Your task to perform on an android device: allow notifications from all sites in the chrome app Image 0: 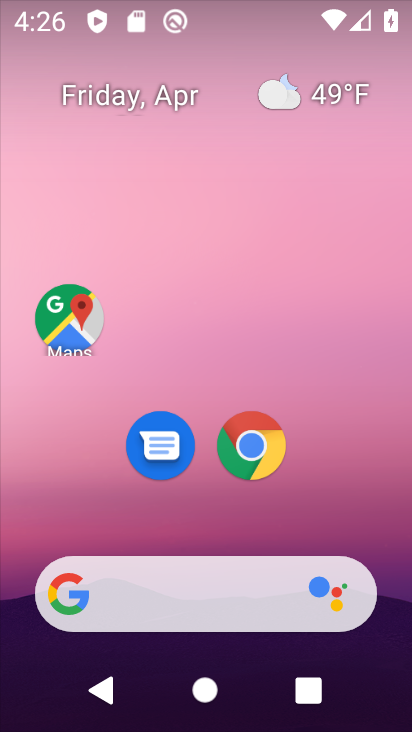
Step 0: drag from (337, 486) to (292, 22)
Your task to perform on an android device: allow notifications from all sites in the chrome app Image 1: 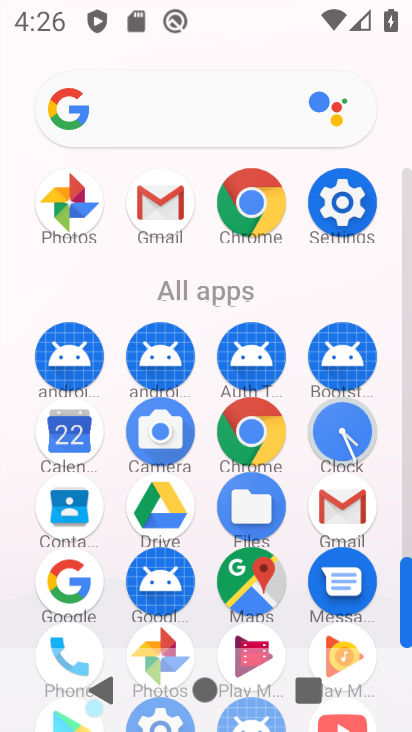
Step 1: click (259, 422)
Your task to perform on an android device: allow notifications from all sites in the chrome app Image 2: 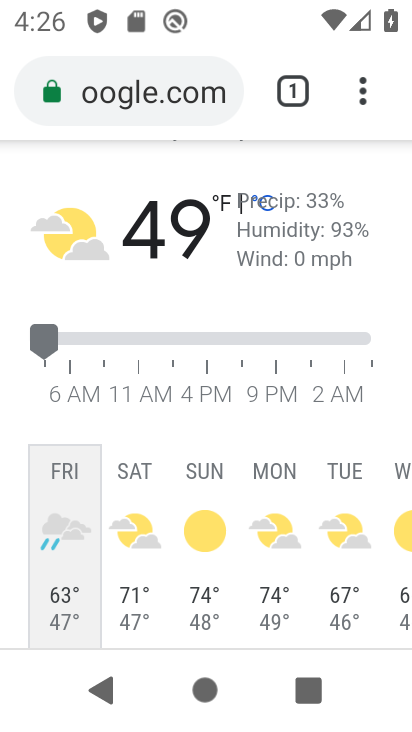
Step 2: click (366, 95)
Your task to perform on an android device: allow notifications from all sites in the chrome app Image 3: 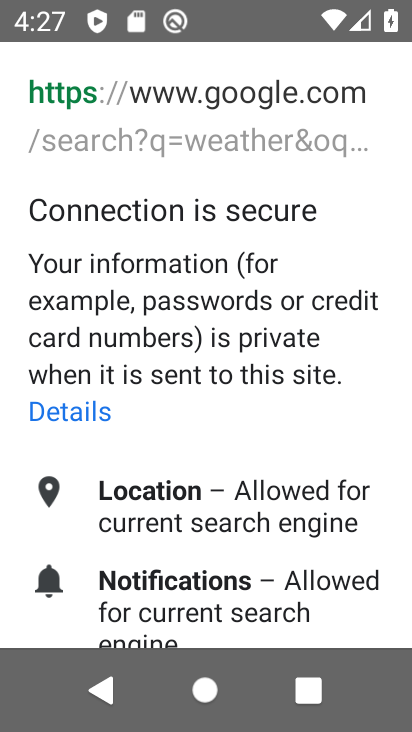
Step 3: drag from (198, 552) to (292, 221)
Your task to perform on an android device: allow notifications from all sites in the chrome app Image 4: 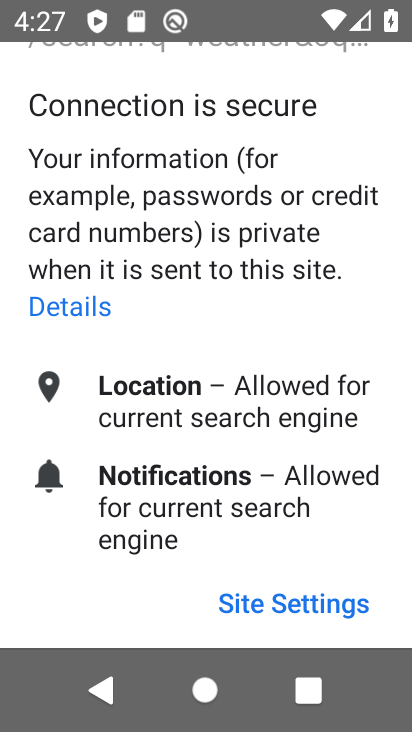
Step 4: click (103, 709)
Your task to perform on an android device: allow notifications from all sites in the chrome app Image 5: 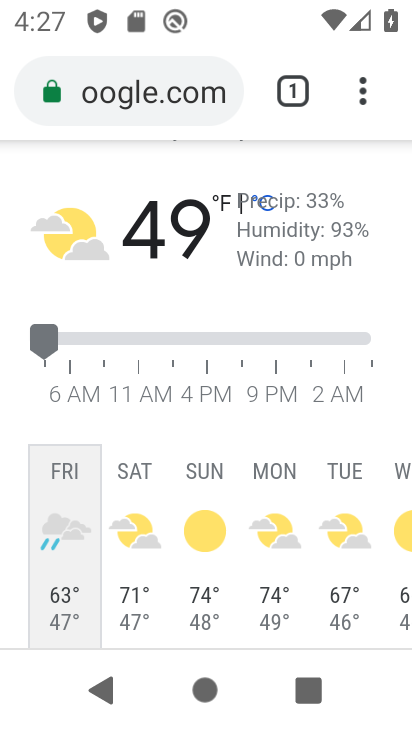
Step 5: click (365, 77)
Your task to perform on an android device: allow notifications from all sites in the chrome app Image 6: 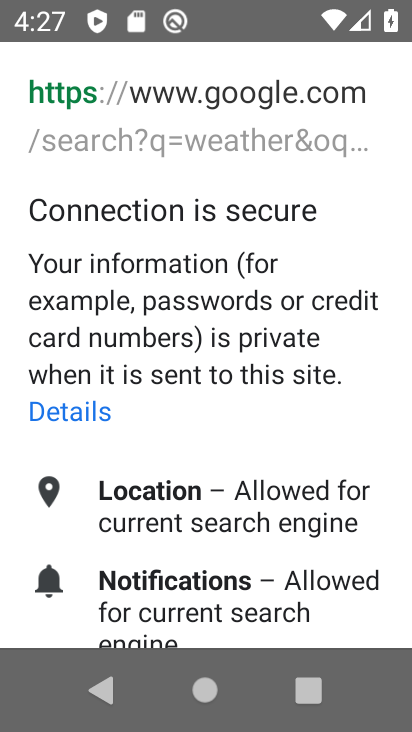
Step 6: click (109, 691)
Your task to perform on an android device: allow notifications from all sites in the chrome app Image 7: 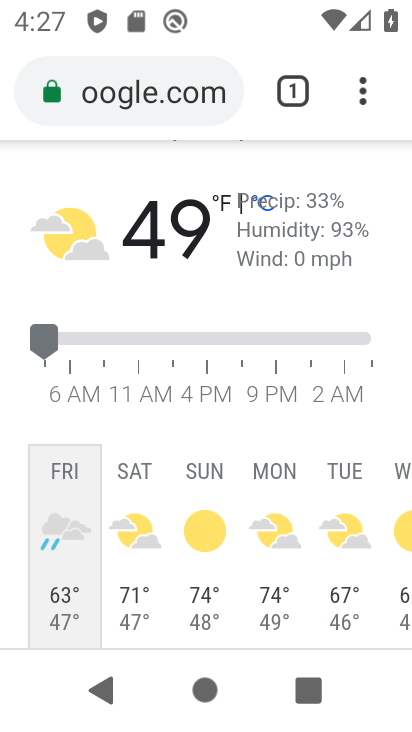
Step 7: drag from (362, 92) to (141, 457)
Your task to perform on an android device: allow notifications from all sites in the chrome app Image 8: 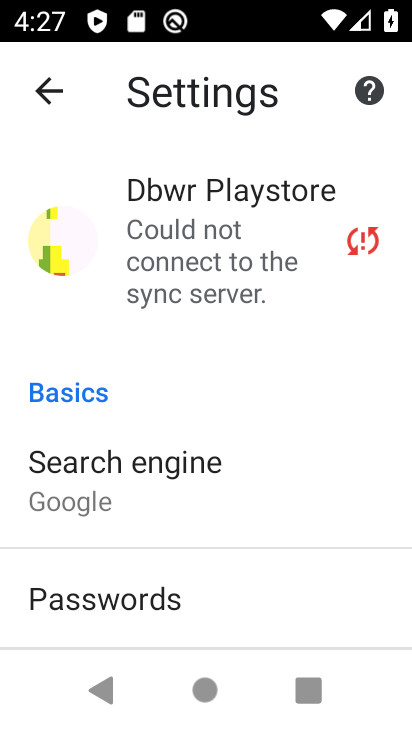
Step 8: drag from (297, 551) to (330, 173)
Your task to perform on an android device: allow notifications from all sites in the chrome app Image 9: 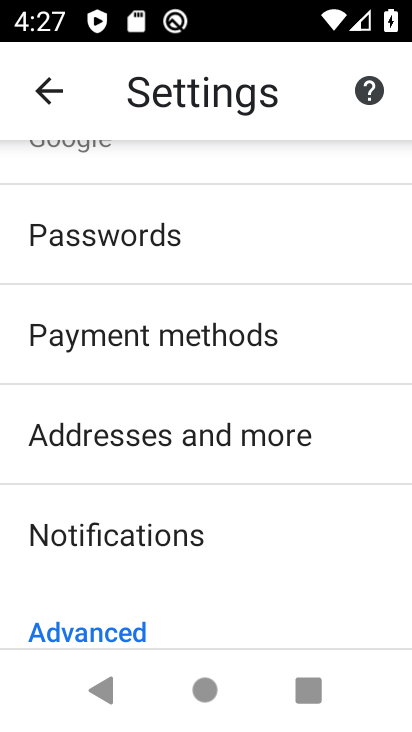
Step 9: click (158, 527)
Your task to perform on an android device: allow notifications from all sites in the chrome app Image 10: 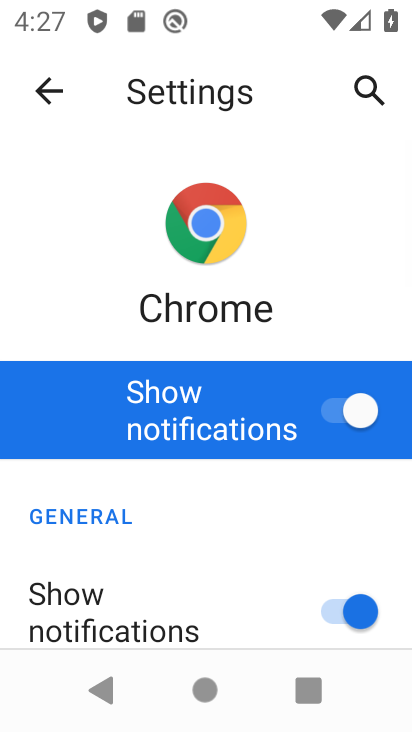
Step 10: task complete